Your task to perform on an android device: What's on my calendar today? Image 0: 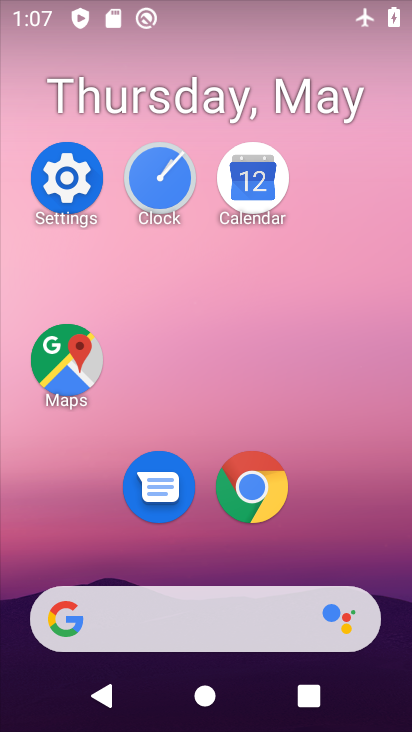
Step 0: click (251, 168)
Your task to perform on an android device: What's on my calendar today? Image 1: 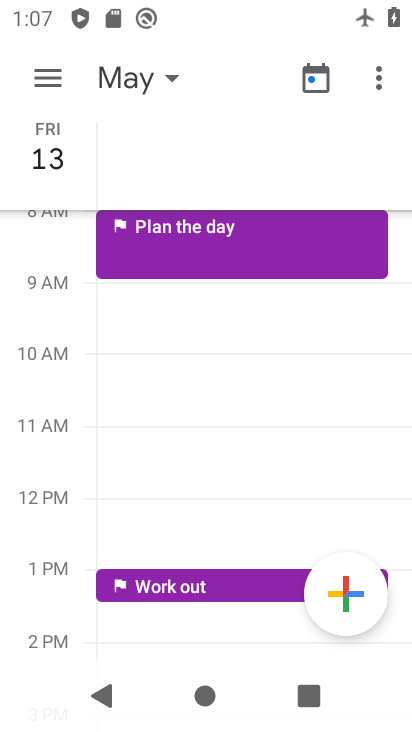
Step 1: task complete